Your task to perform on an android device: What is the recent news? Image 0: 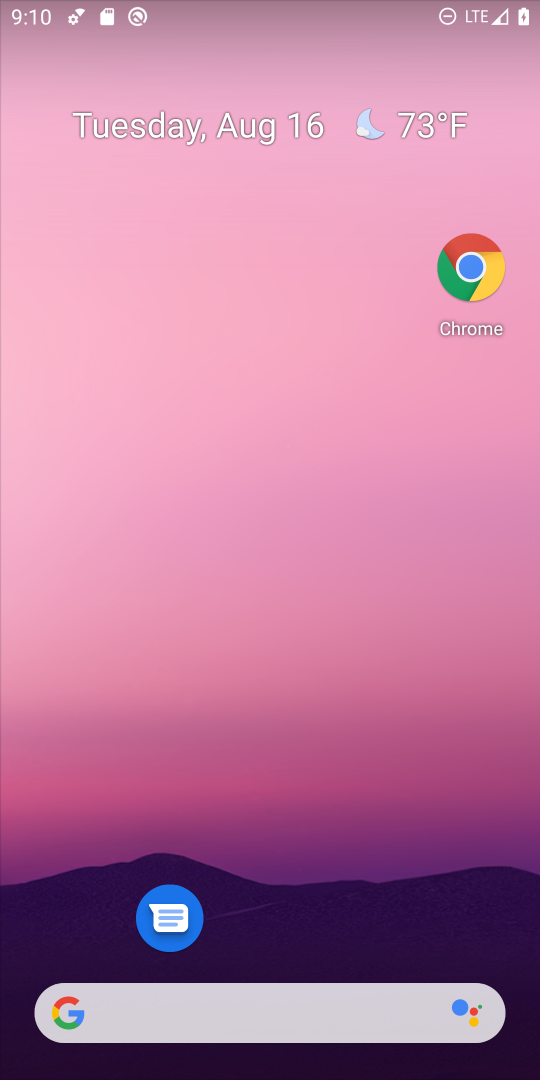
Step 0: drag from (274, 940) to (337, 34)
Your task to perform on an android device: What is the recent news? Image 1: 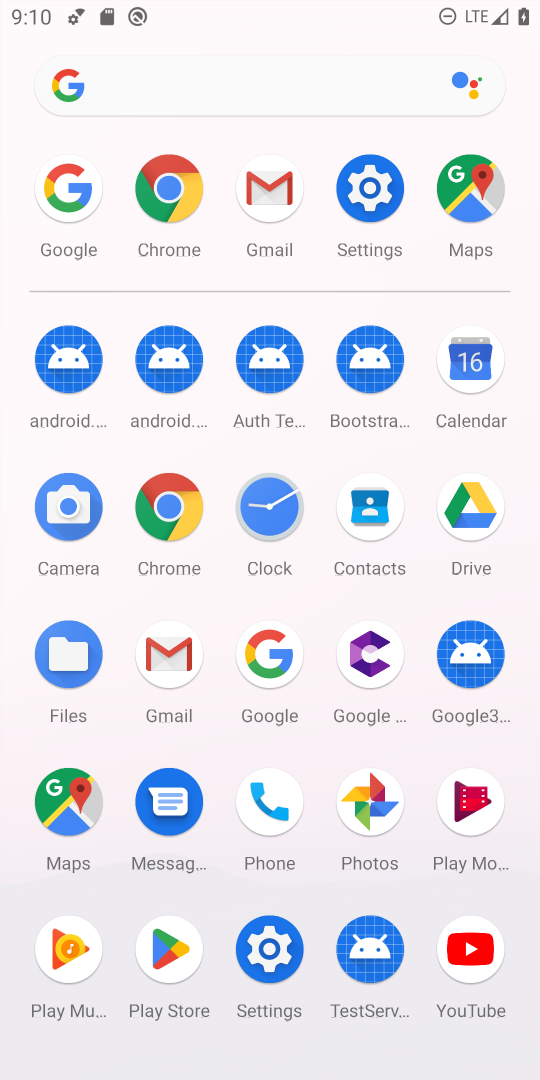
Step 1: click (465, 385)
Your task to perform on an android device: What is the recent news? Image 2: 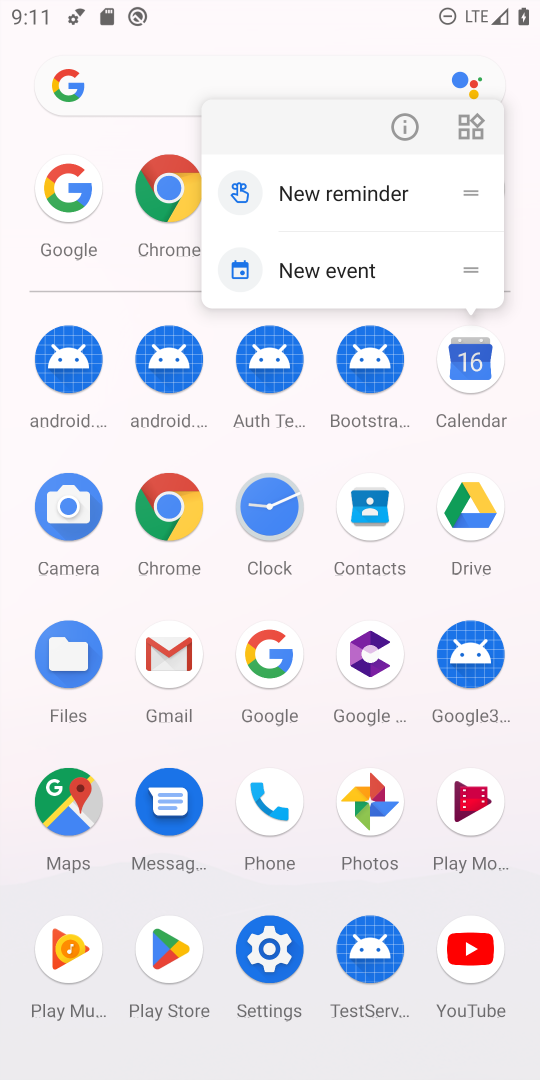
Step 2: click (478, 390)
Your task to perform on an android device: What is the recent news? Image 3: 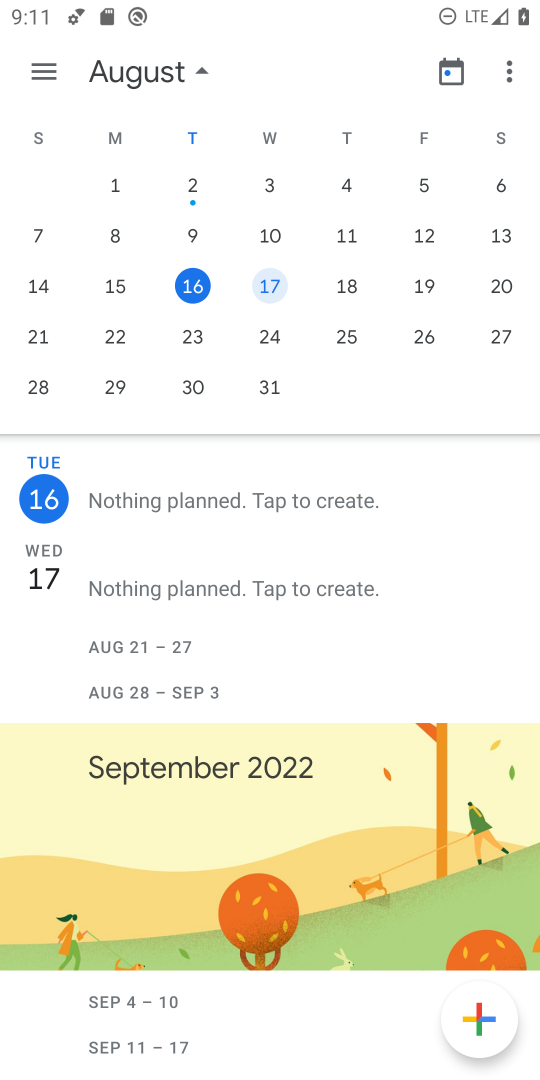
Step 3: press home button
Your task to perform on an android device: What is the recent news? Image 4: 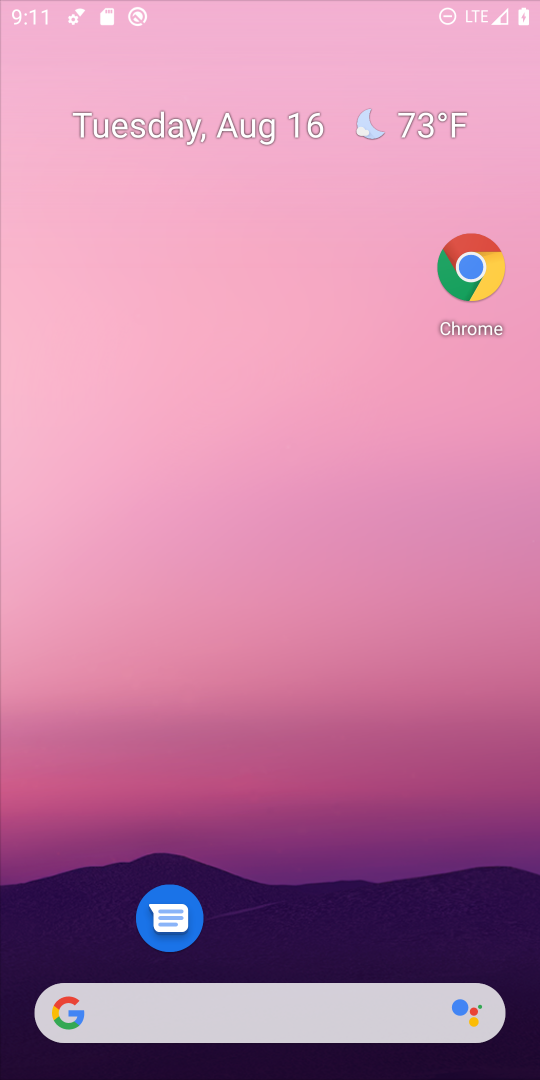
Step 4: drag from (294, 944) to (294, 264)
Your task to perform on an android device: What is the recent news? Image 5: 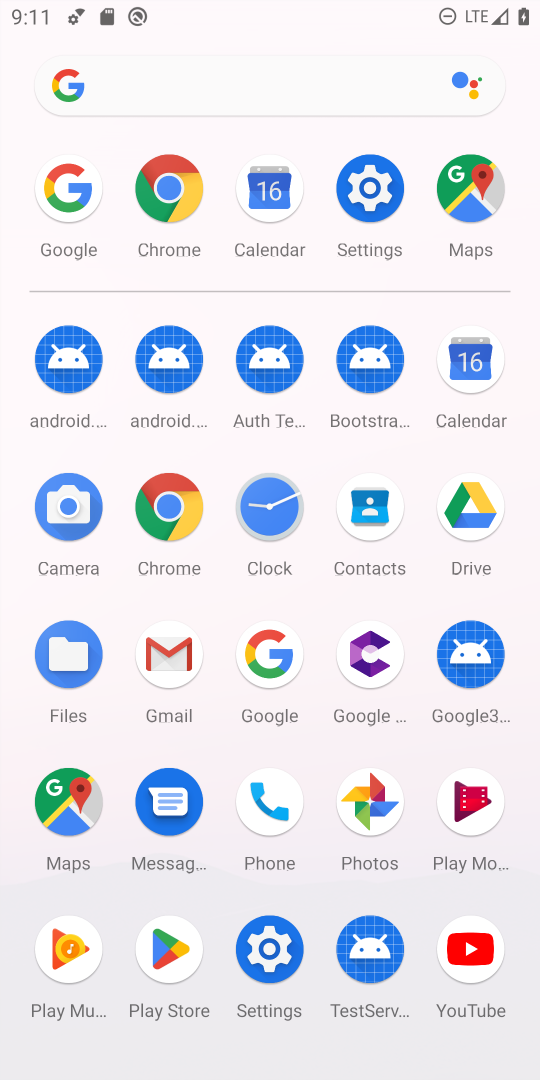
Step 5: click (283, 680)
Your task to perform on an android device: What is the recent news? Image 6: 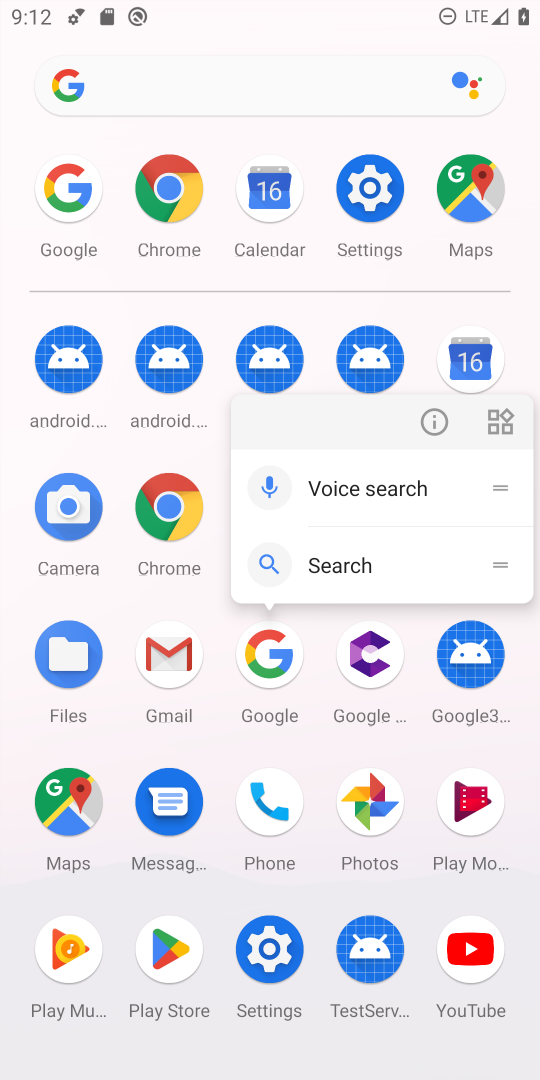
Step 6: click (274, 691)
Your task to perform on an android device: What is the recent news? Image 7: 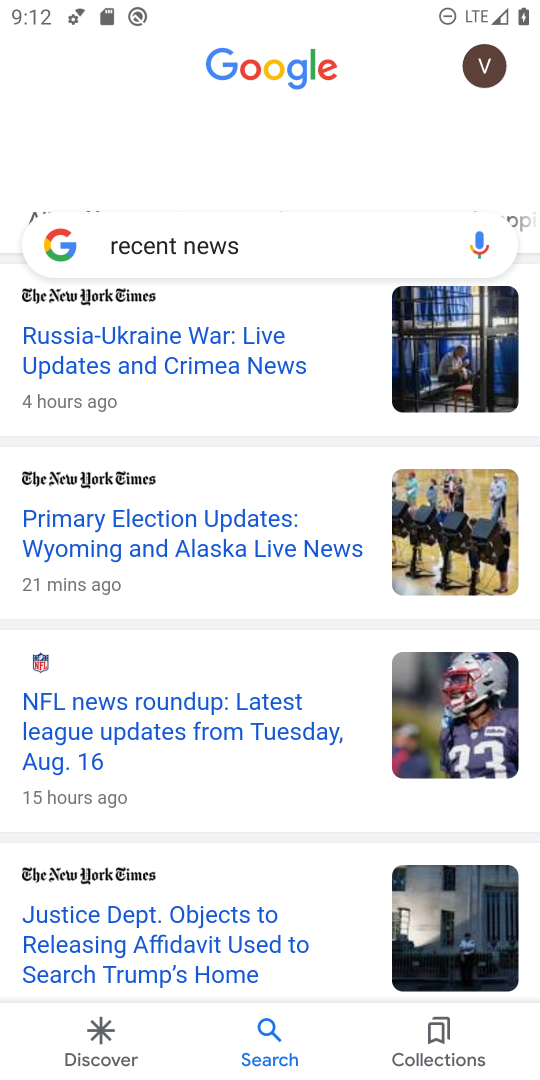
Step 7: task complete